Your task to perform on an android device: open wifi settings Image 0: 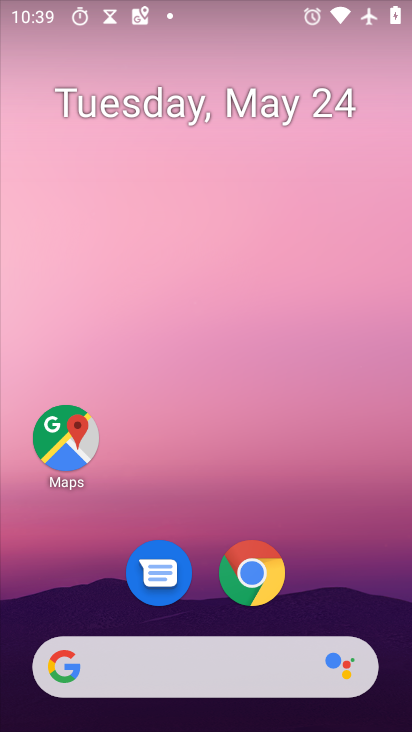
Step 0: drag from (378, 588) to (410, 67)
Your task to perform on an android device: open wifi settings Image 1: 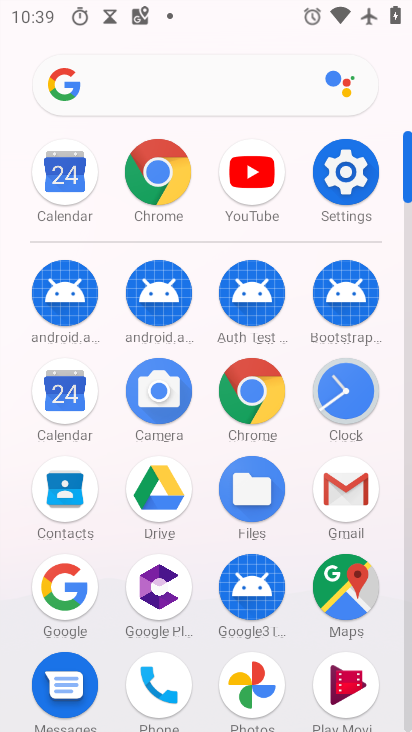
Step 1: click (337, 187)
Your task to perform on an android device: open wifi settings Image 2: 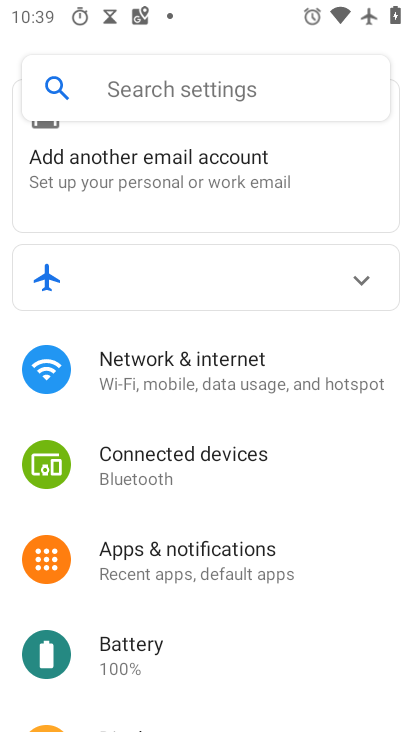
Step 2: click (231, 373)
Your task to perform on an android device: open wifi settings Image 3: 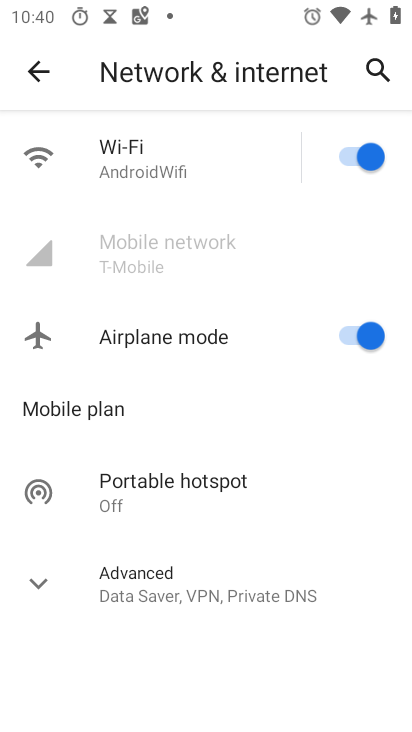
Step 3: click (129, 166)
Your task to perform on an android device: open wifi settings Image 4: 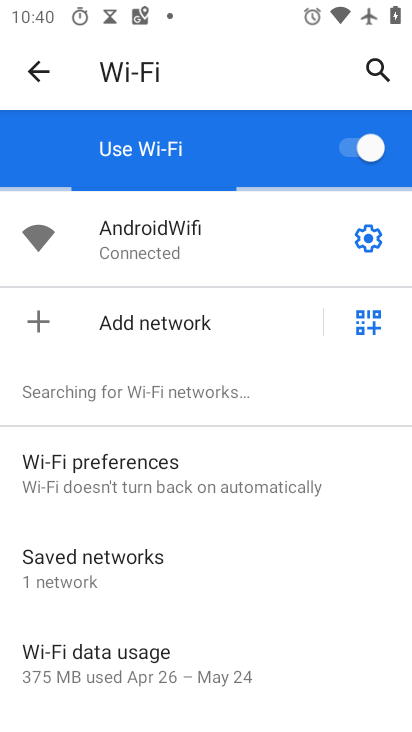
Step 4: task complete